Your task to perform on an android device: change alarm snooze length Image 0: 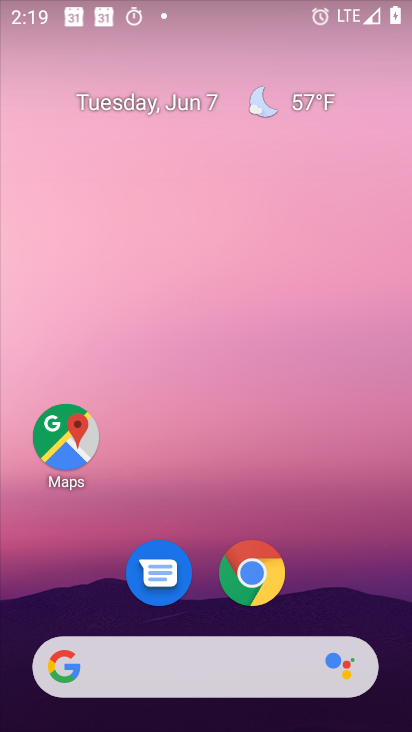
Step 0: press home button
Your task to perform on an android device: change alarm snooze length Image 1: 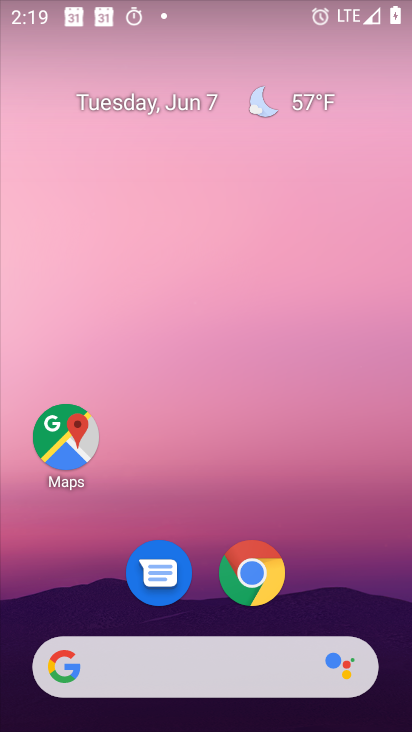
Step 1: drag from (355, 623) to (271, 53)
Your task to perform on an android device: change alarm snooze length Image 2: 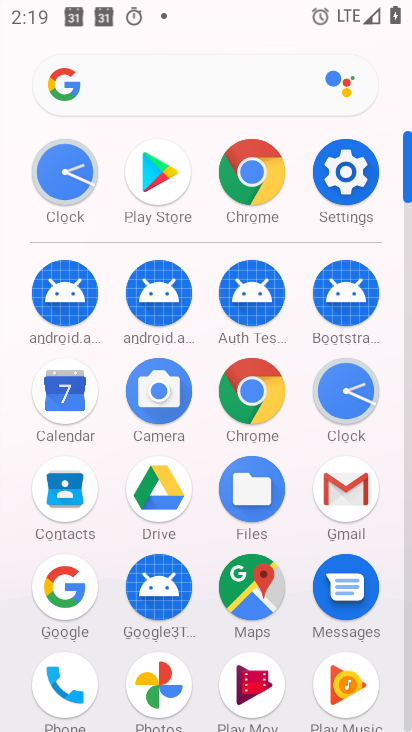
Step 2: click (332, 419)
Your task to perform on an android device: change alarm snooze length Image 3: 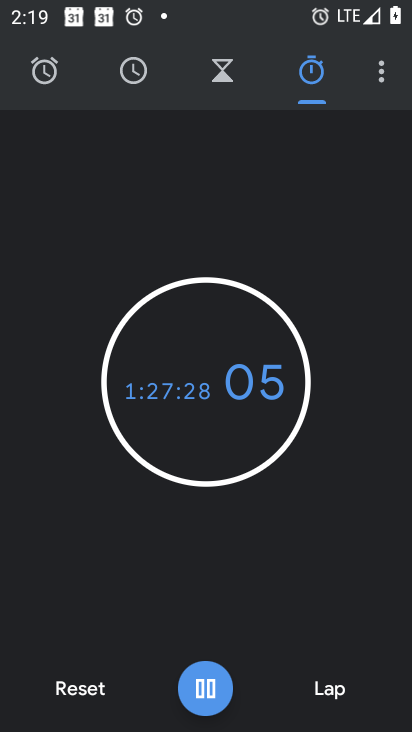
Step 3: click (46, 97)
Your task to perform on an android device: change alarm snooze length Image 4: 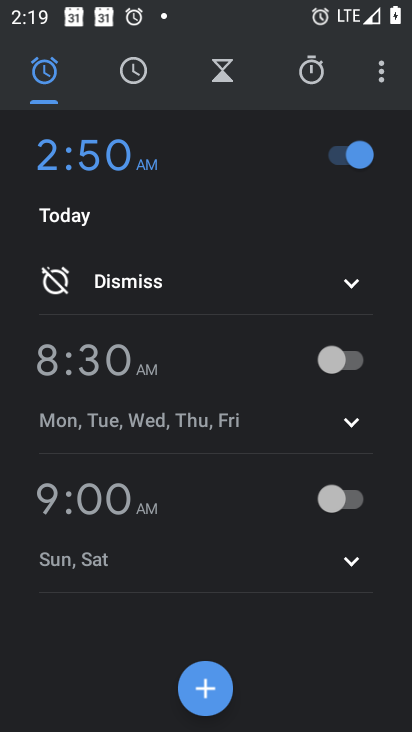
Step 4: click (389, 61)
Your task to perform on an android device: change alarm snooze length Image 5: 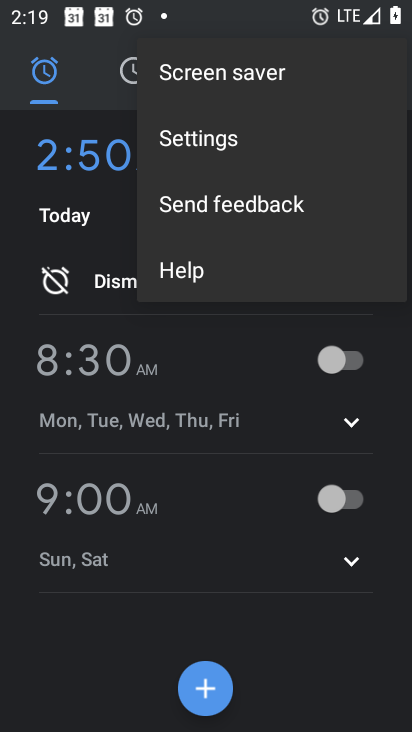
Step 5: click (192, 150)
Your task to perform on an android device: change alarm snooze length Image 6: 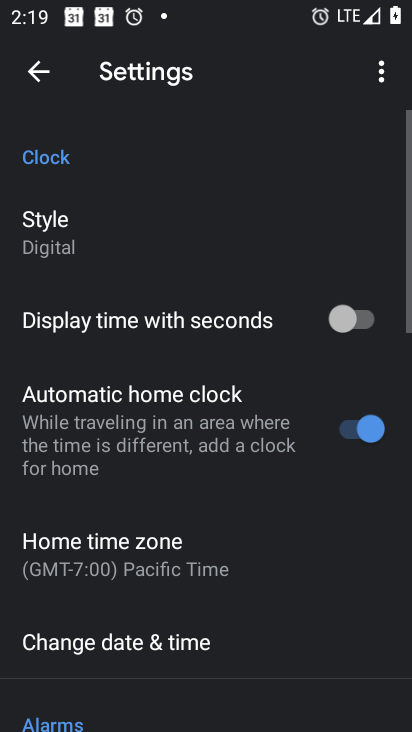
Step 6: drag from (199, 578) to (163, 132)
Your task to perform on an android device: change alarm snooze length Image 7: 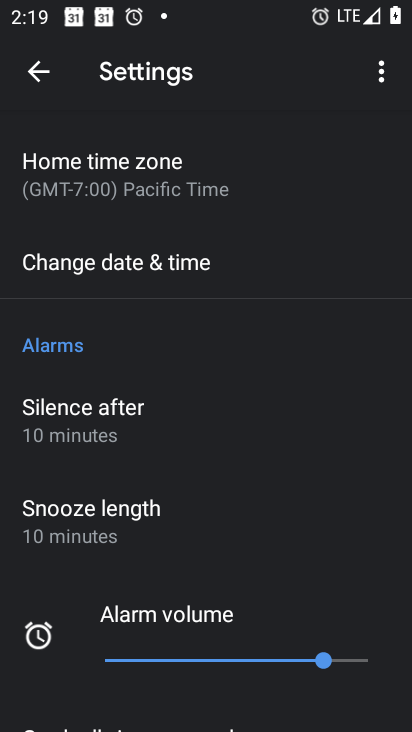
Step 7: click (102, 546)
Your task to perform on an android device: change alarm snooze length Image 8: 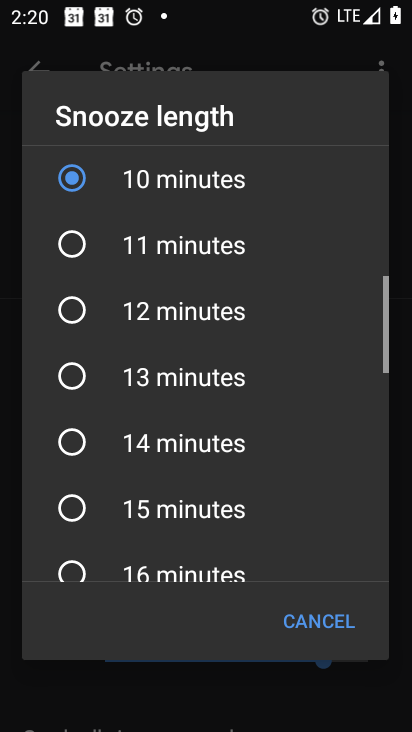
Step 8: click (145, 351)
Your task to perform on an android device: change alarm snooze length Image 9: 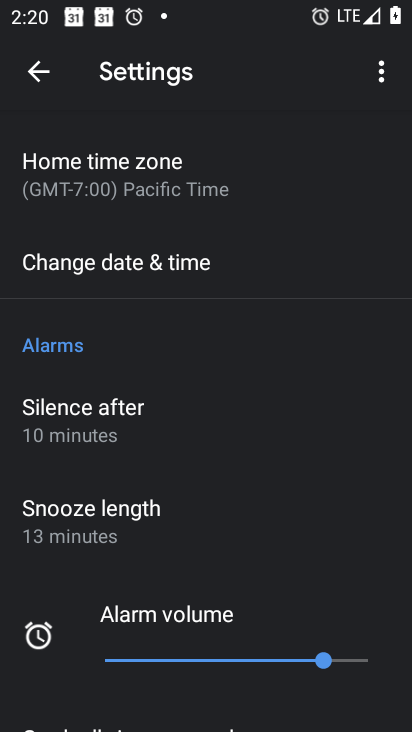
Step 9: task complete